Your task to perform on an android device: turn off notifications settings in the gmail app Image 0: 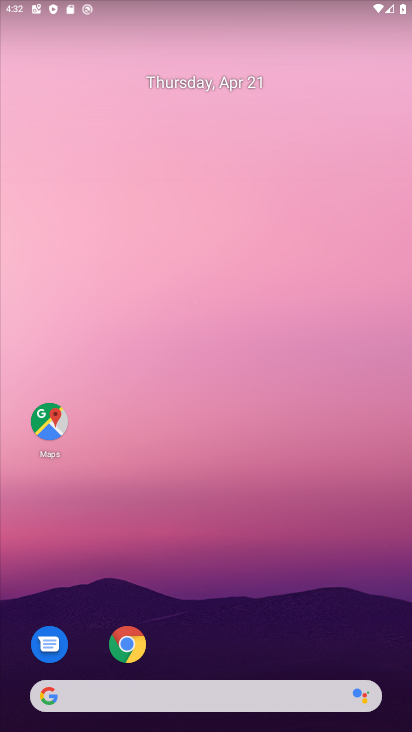
Step 0: drag from (204, 683) to (198, 184)
Your task to perform on an android device: turn off notifications settings in the gmail app Image 1: 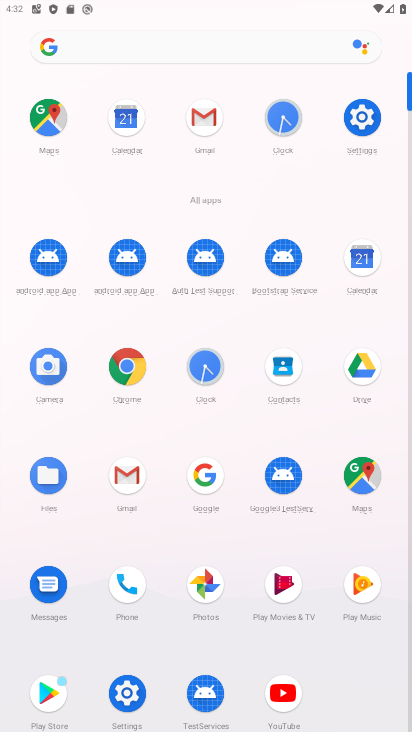
Step 1: click (123, 475)
Your task to perform on an android device: turn off notifications settings in the gmail app Image 2: 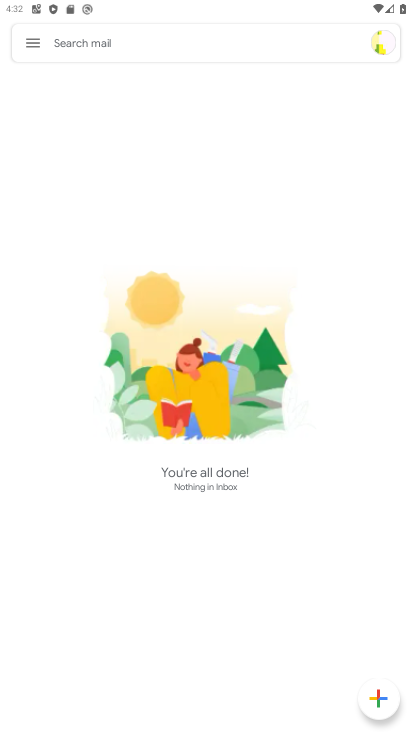
Step 2: click (28, 47)
Your task to perform on an android device: turn off notifications settings in the gmail app Image 3: 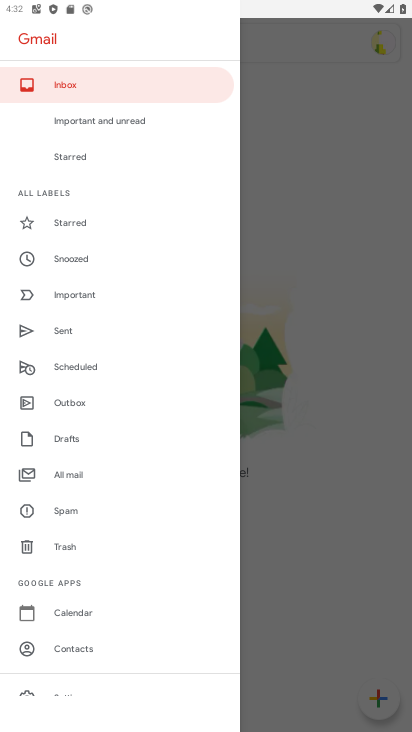
Step 3: drag from (80, 665) to (101, 329)
Your task to perform on an android device: turn off notifications settings in the gmail app Image 4: 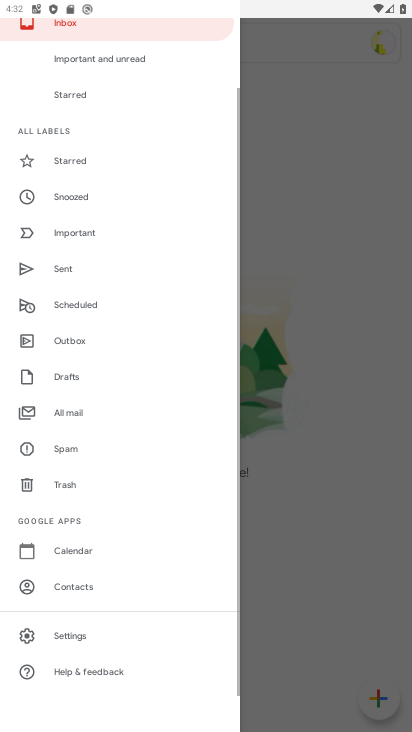
Step 4: click (63, 638)
Your task to perform on an android device: turn off notifications settings in the gmail app Image 5: 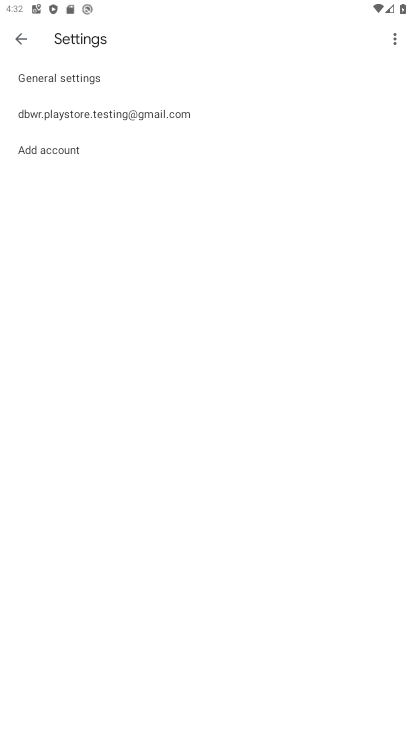
Step 5: click (85, 73)
Your task to perform on an android device: turn off notifications settings in the gmail app Image 6: 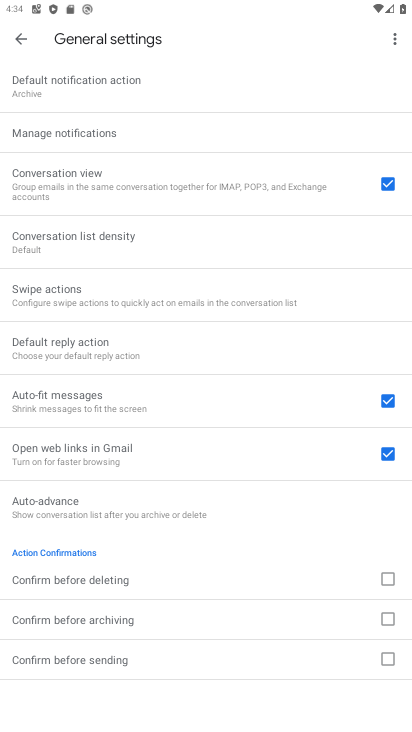
Step 6: click (68, 132)
Your task to perform on an android device: turn off notifications settings in the gmail app Image 7: 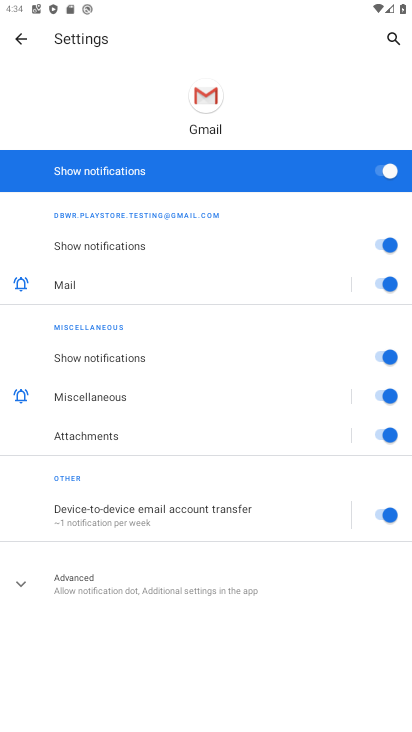
Step 7: click (378, 169)
Your task to perform on an android device: turn off notifications settings in the gmail app Image 8: 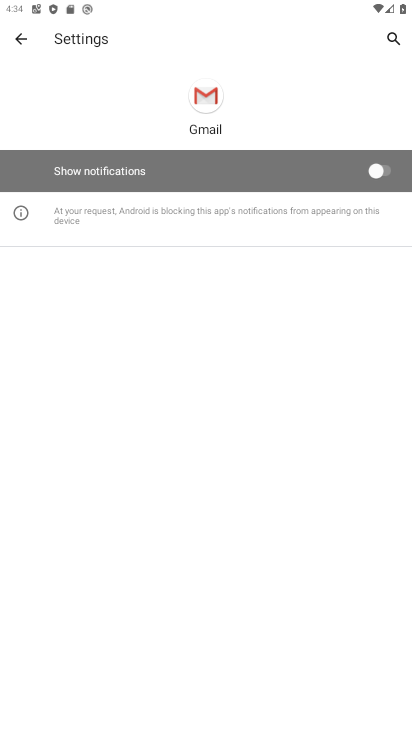
Step 8: task complete